Your task to perform on an android device: change your default location settings in chrome Image 0: 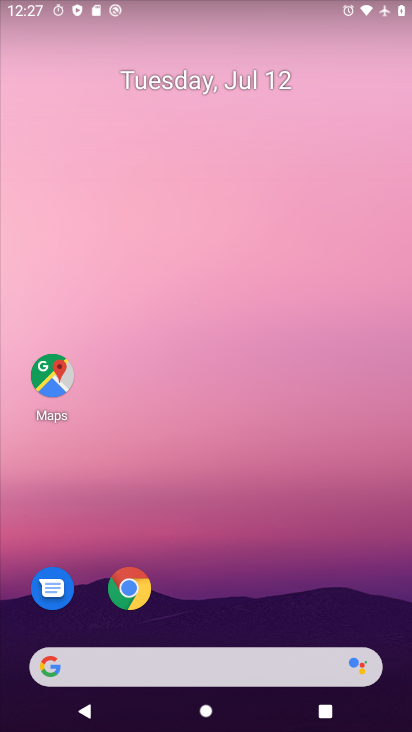
Step 0: press home button
Your task to perform on an android device: change your default location settings in chrome Image 1: 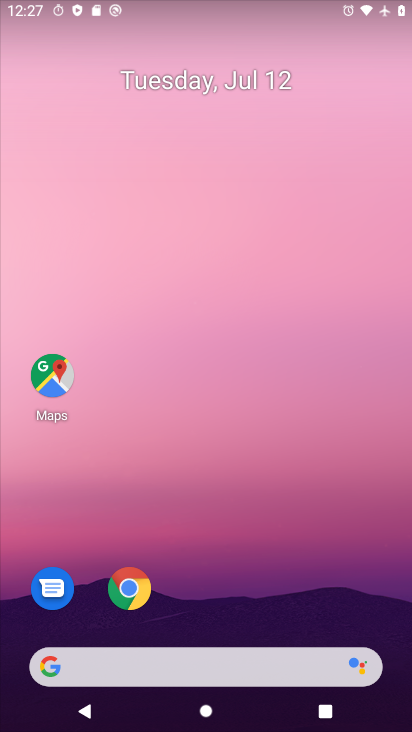
Step 1: click (137, 594)
Your task to perform on an android device: change your default location settings in chrome Image 2: 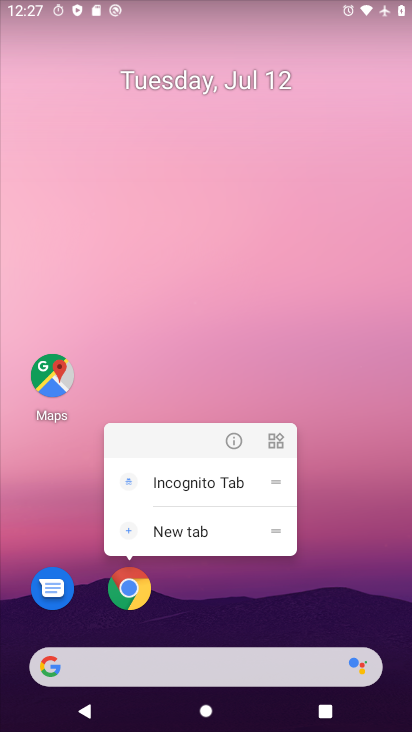
Step 2: click (118, 600)
Your task to perform on an android device: change your default location settings in chrome Image 3: 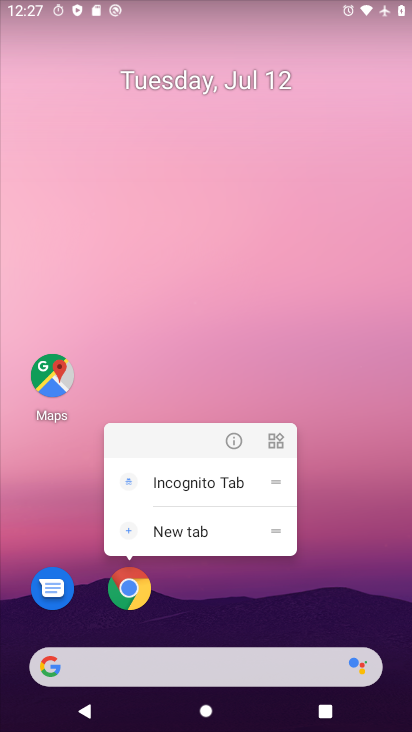
Step 3: click (127, 595)
Your task to perform on an android device: change your default location settings in chrome Image 4: 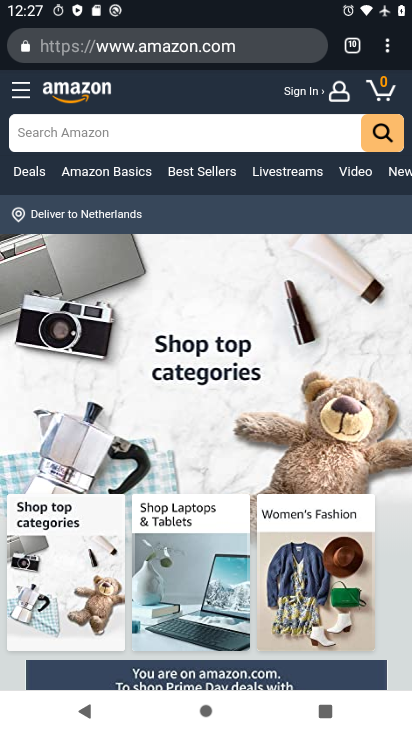
Step 4: drag from (385, 52) to (246, 543)
Your task to perform on an android device: change your default location settings in chrome Image 5: 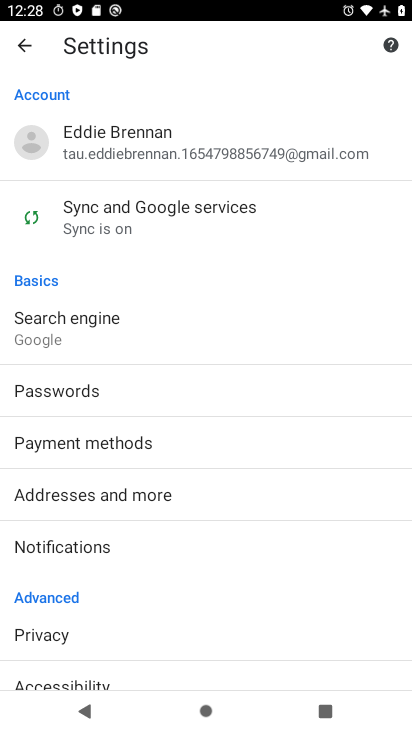
Step 5: drag from (128, 610) to (268, 184)
Your task to perform on an android device: change your default location settings in chrome Image 6: 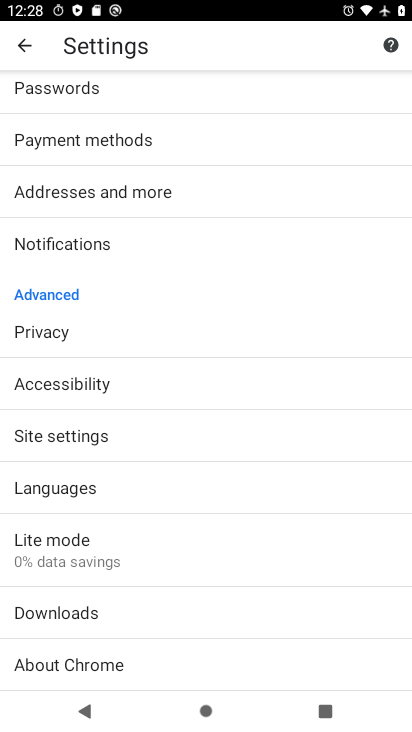
Step 6: click (70, 435)
Your task to perform on an android device: change your default location settings in chrome Image 7: 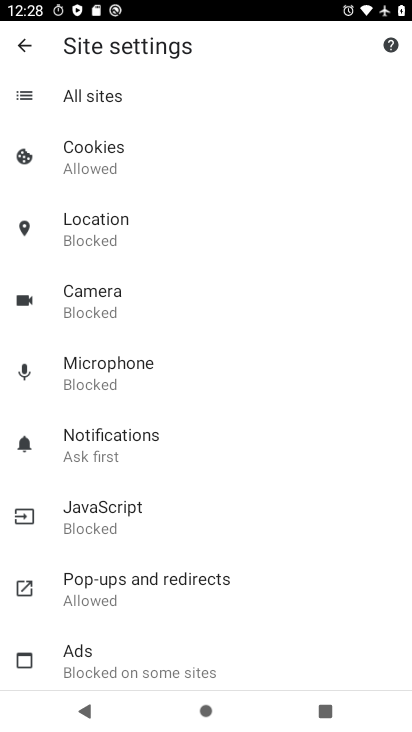
Step 7: click (102, 219)
Your task to perform on an android device: change your default location settings in chrome Image 8: 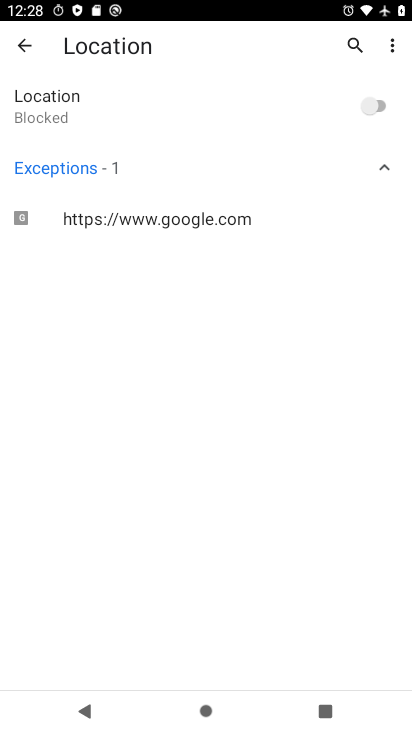
Step 8: click (380, 106)
Your task to perform on an android device: change your default location settings in chrome Image 9: 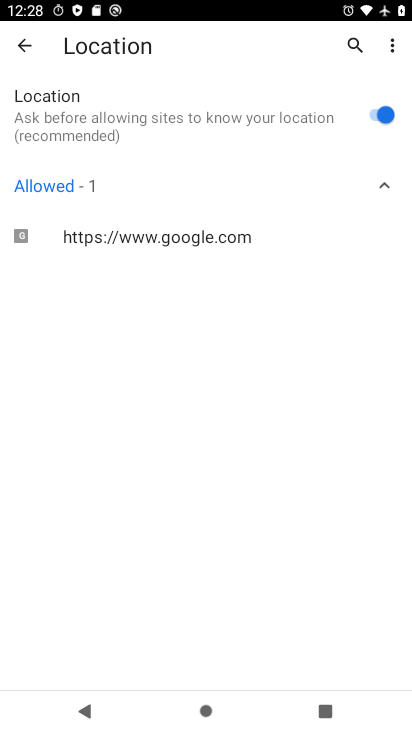
Step 9: task complete